Your task to perform on an android device: Open Google Image 0: 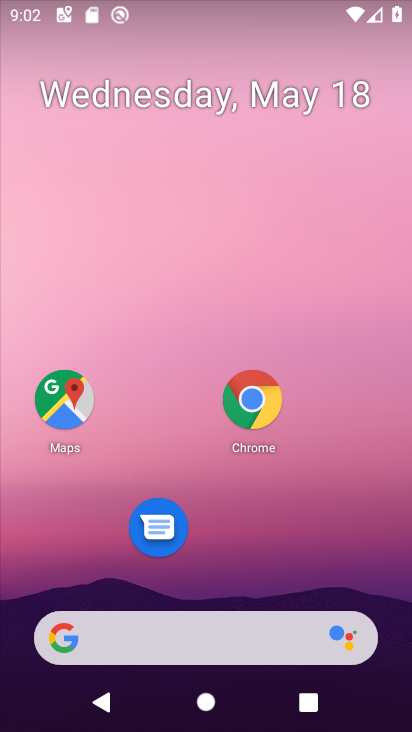
Step 0: click (185, 656)
Your task to perform on an android device: Open Google Image 1: 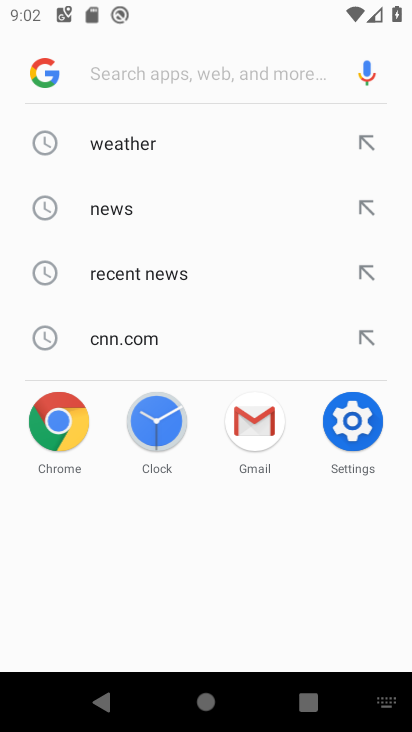
Step 1: task complete